Your task to perform on an android device: Open Maps and search for coffee Image 0: 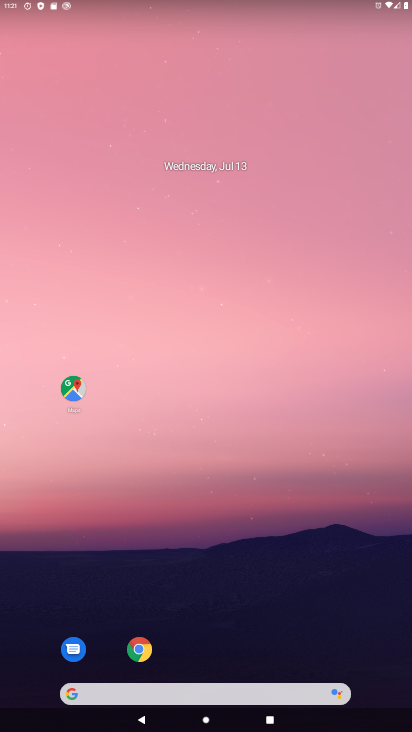
Step 0: click (70, 388)
Your task to perform on an android device: Open Maps and search for coffee Image 1: 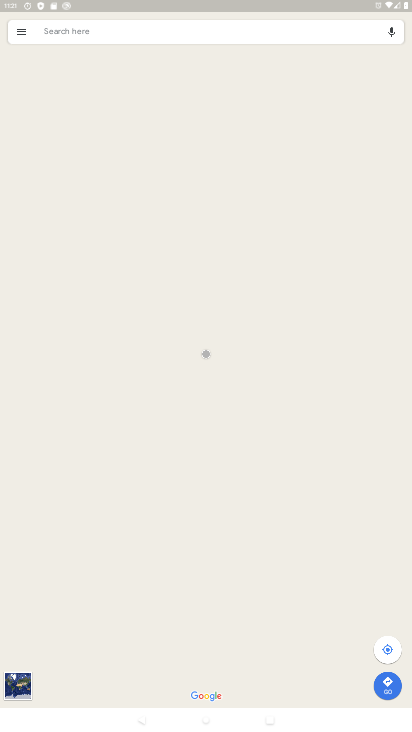
Step 1: click (236, 32)
Your task to perform on an android device: Open Maps and search for coffee Image 2: 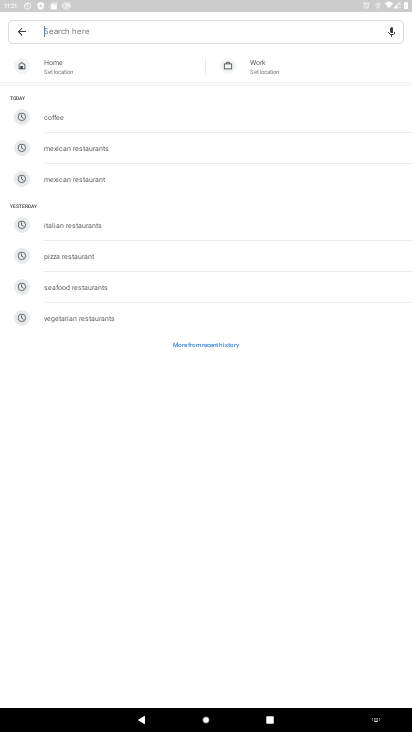
Step 2: type "coffee"
Your task to perform on an android device: Open Maps and search for coffee Image 3: 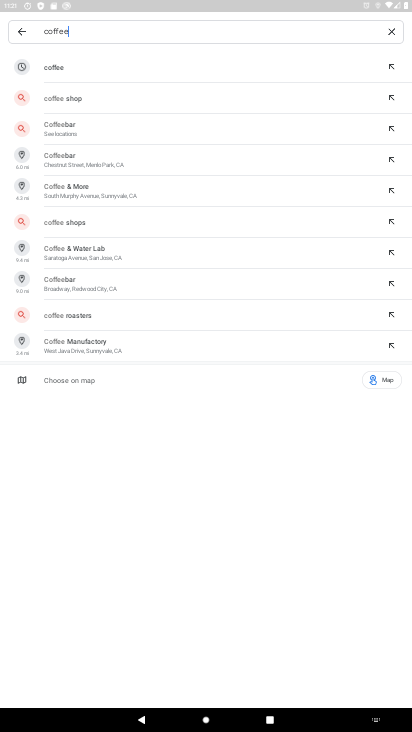
Step 3: click (59, 72)
Your task to perform on an android device: Open Maps and search for coffee Image 4: 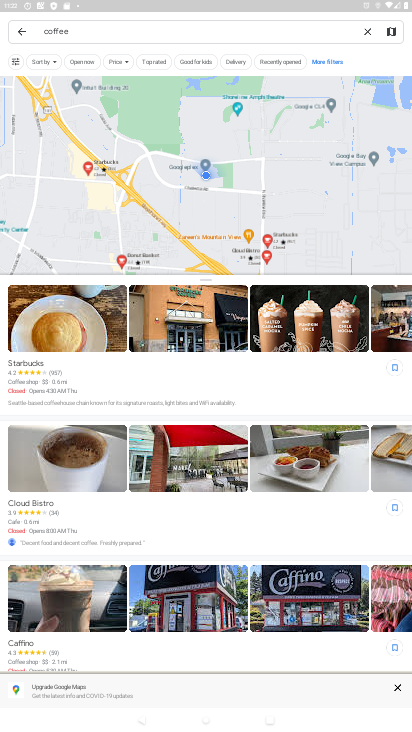
Step 4: task complete